Your task to perform on an android device: turn notification dots on Image 0: 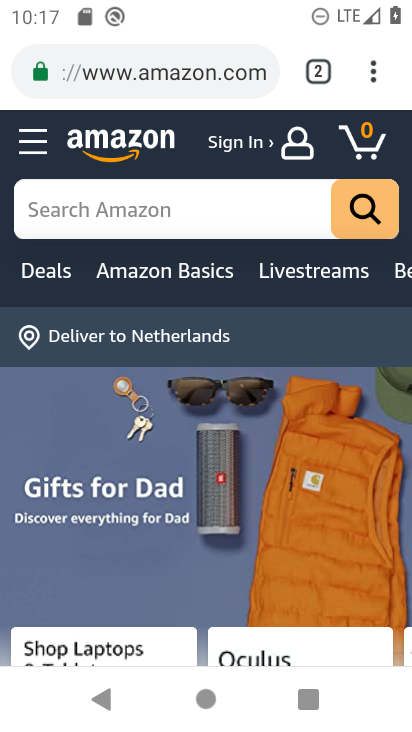
Step 0: press home button
Your task to perform on an android device: turn notification dots on Image 1: 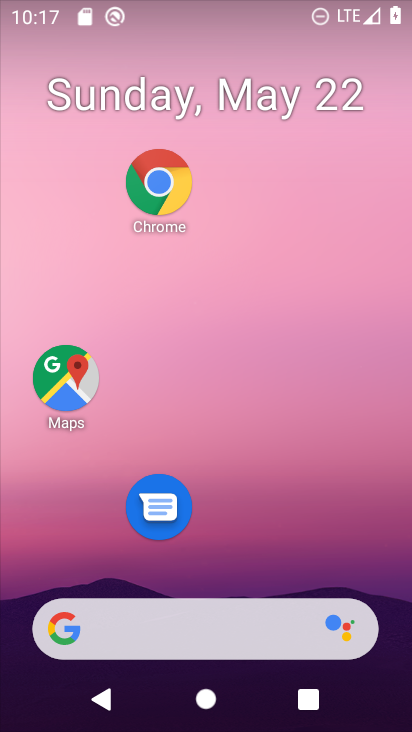
Step 1: drag from (240, 684) to (250, 197)
Your task to perform on an android device: turn notification dots on Image 2: 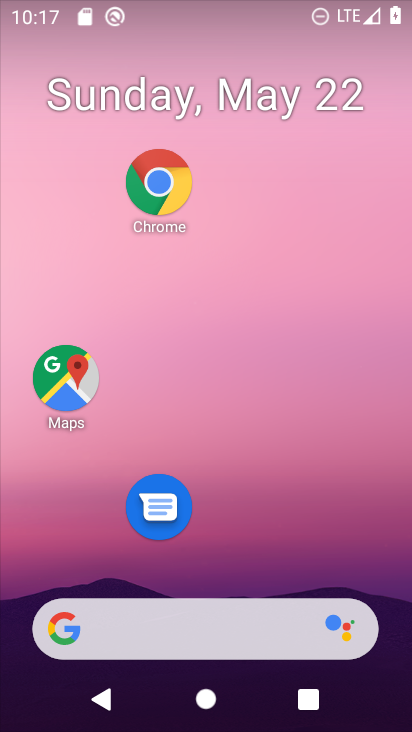
Step 2: click (293, 187)
Your task to perform on an android device: turn notification dots on Image 3: 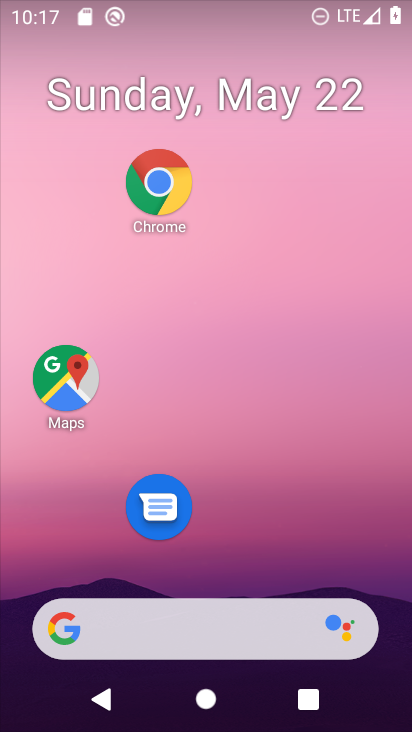
Step 3: drag from (246, 669) to (311, 12)
Your task to perform on an android device: turn notification dots on Image 4: 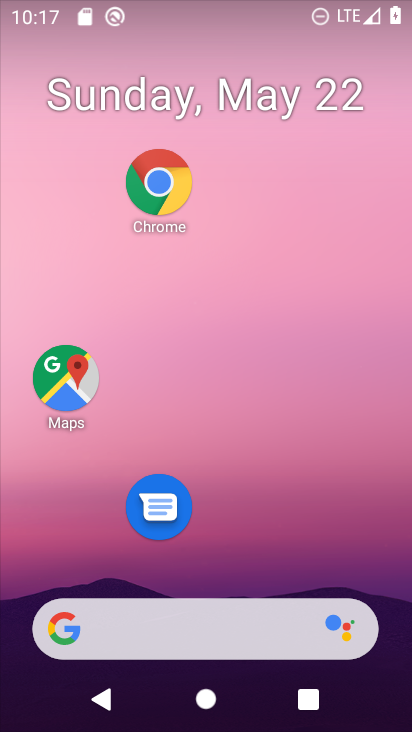
Step 4: drag from (254, 699) to (354, 113)
Your task to perform on an android device: turn notification dots on Image 5: 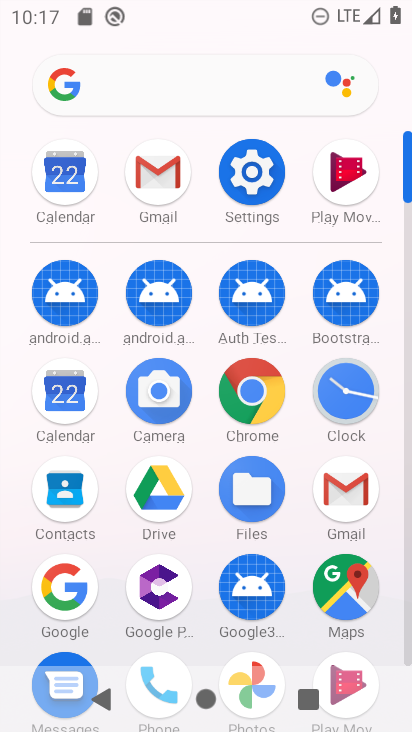
Step 5: click (239, 175)
Your task to perform on an android device: turn notification dots on Image 6: 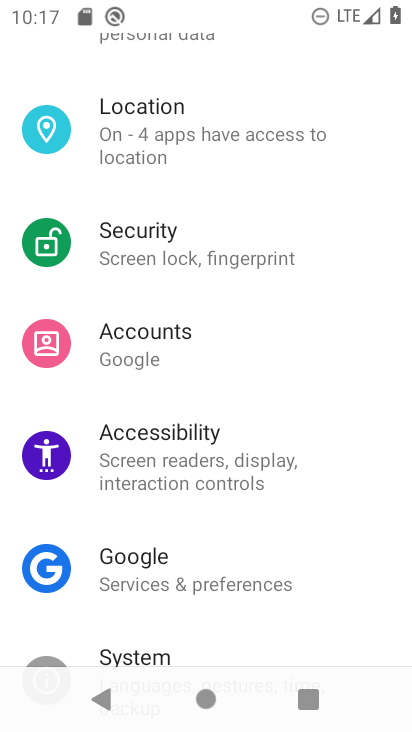
Step 6: drag from (289, 228) to (300, 697)
Your task to perform on an android device: turn notification dots on Image 7: 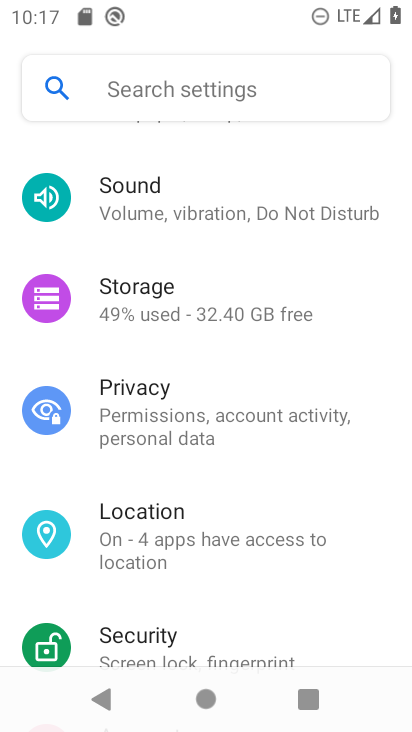
Step 7: drag from (286, 175) to (287, 694)
Your task to perform on an android device: turn notification dots on Image 8: 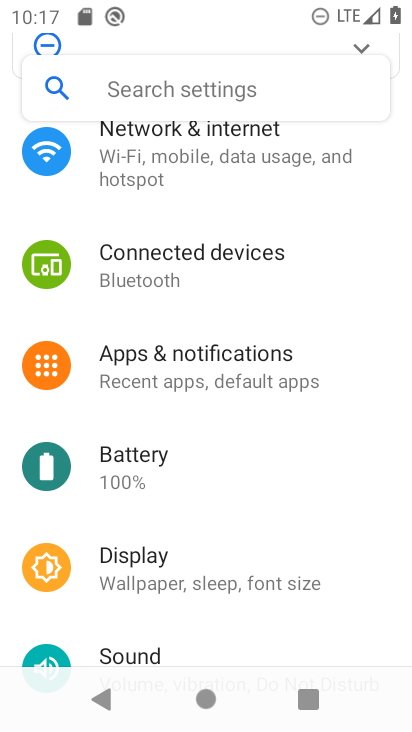
Step 8: click (281, 373)
Your task to perform on an android device: turn notification dots on Image 9: 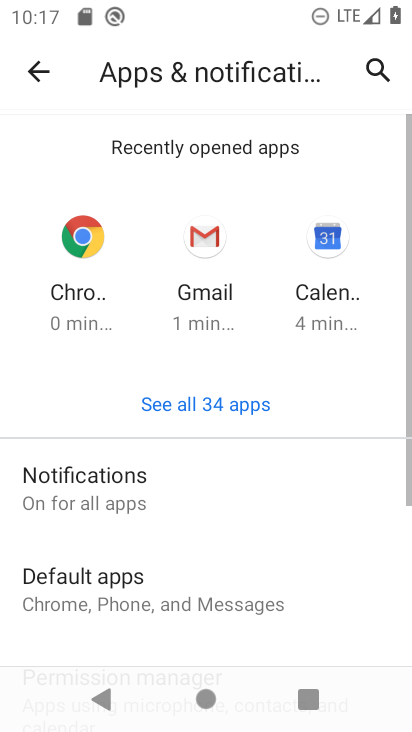
Step 9: click (158, 482)
Your task to perform on an android device: turn notification dots on Image 10: 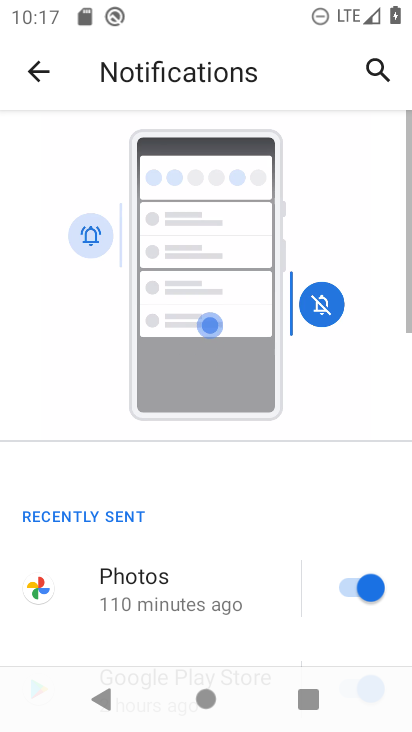
Step 10: drag from (268, 548) to (241, 68)
Your task to perform on an android device: turn notification dots on Image 11: 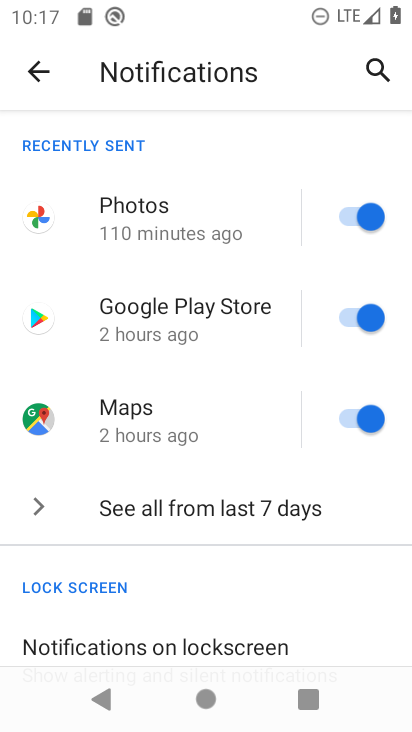
Step 11: drag from (183, 554) to (114, 117)
Your task to perform on an android device: turn notification dots on Image 12: 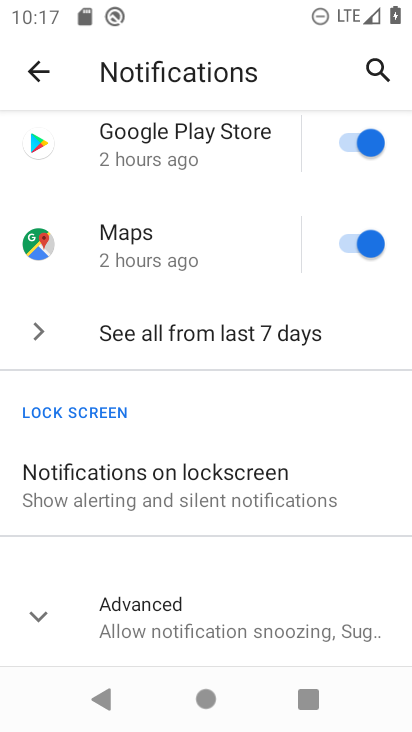
Step 12: click (194, 635)
Your task to perform on an android device: turn notification dots on Image 13: 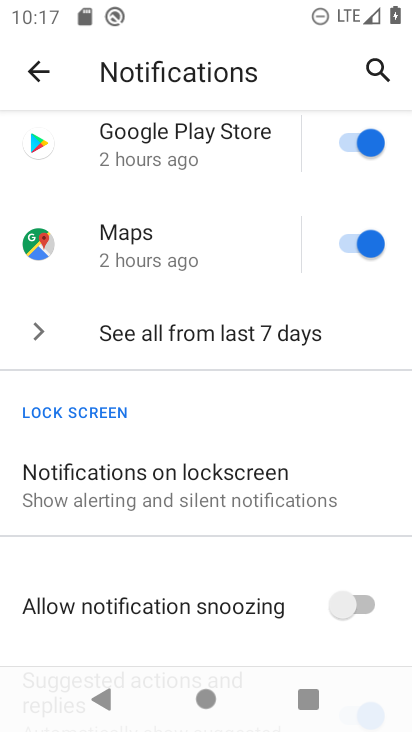
Step 13: task complete